Your task to perform on an android device: open sync settings in chrome Image 0: 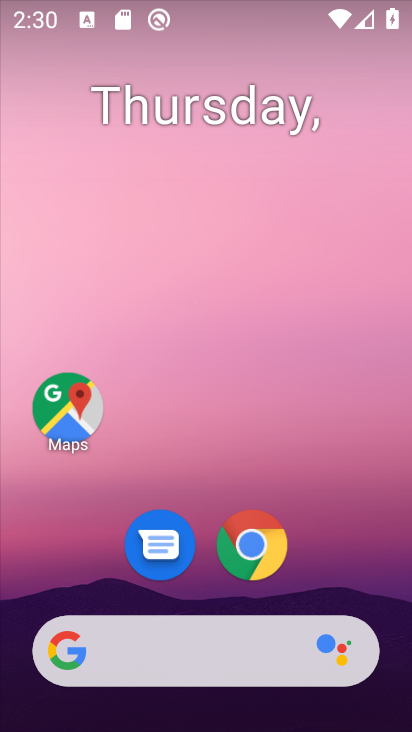
Step 0: drag from (183, 693) to (294, 11)
Your task to perform on an android device: open sync settings in chrome Image 1: 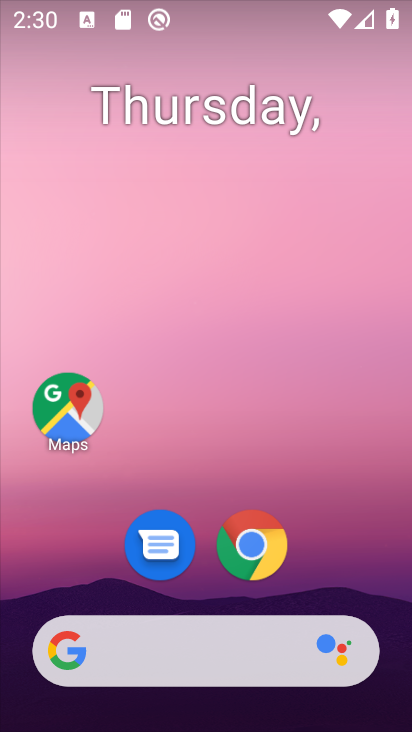
Step 1: click (261, 528)
Your task to perform on an android device: open sync settings in chrome Image 2: 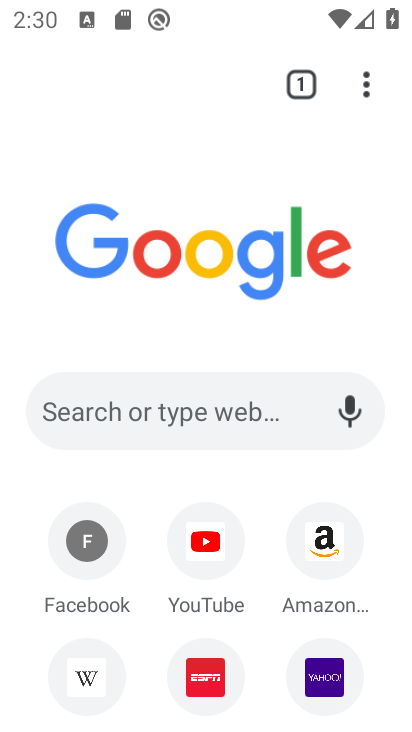
Step 2: click (366, 80)
Your task to perform on an android device: open sync settings in chrome Image 3: 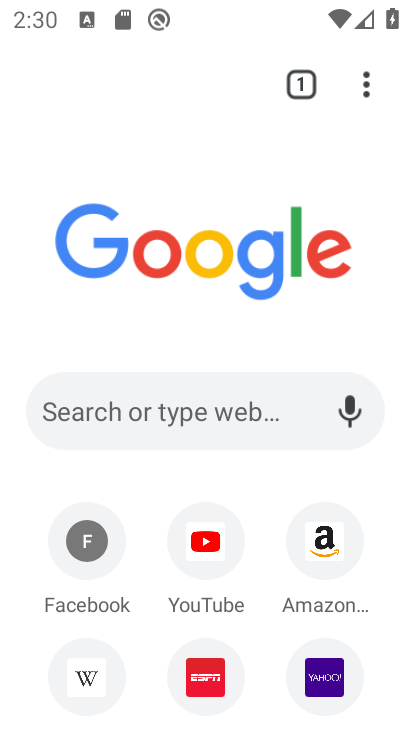
Step 3: click (369, 76)
Your task to perform on an android device: open sync settings in chrome Image 4: 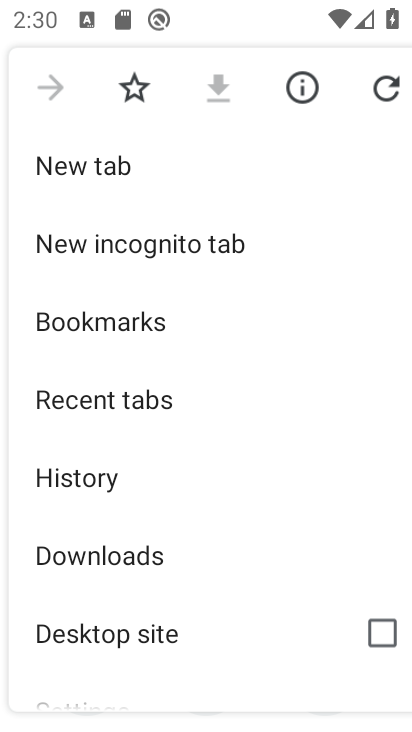
Step 4: click (155, 701)
Your task to perform on an android device: open sync settings in chrome Image 5: 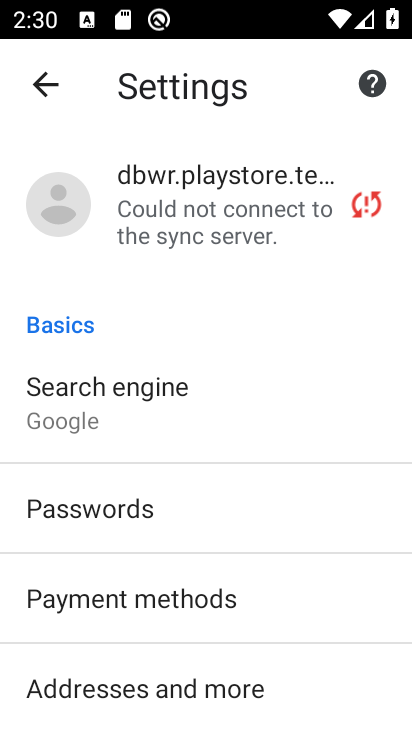
Step 5: click (223, 220)
Your task to perform on an android device: open sync settings in chrome Image 6: 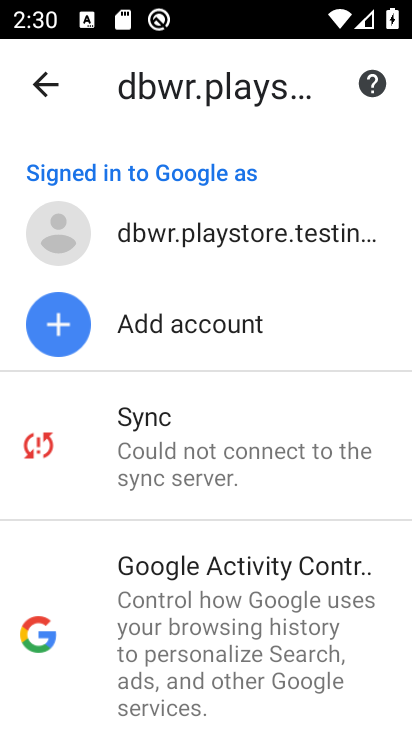
Step 6: task complete